Your task to perform on an android device: delete the emails in spam in the gmail app Image 0: 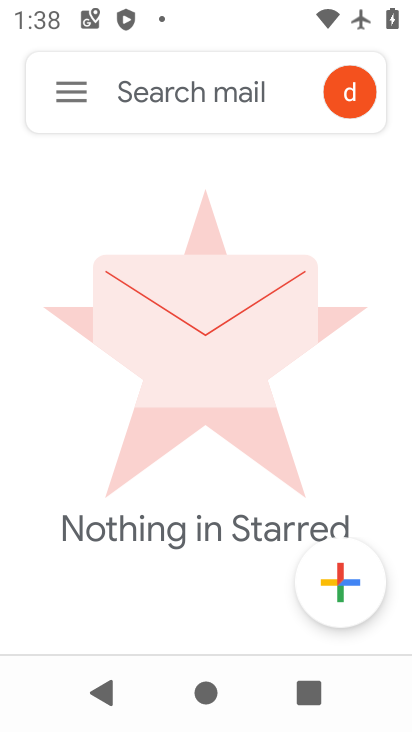
Step 0: press home button
Your task to perform on an android device: delete the emails in spam in the gmail app Image 1: 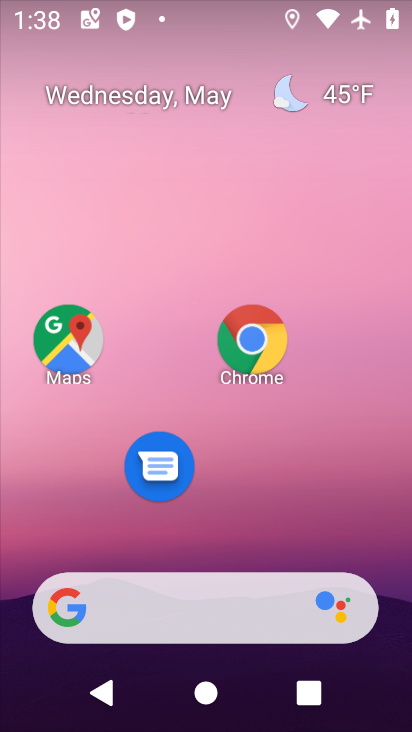
Step 1: drag from (166, 597) to (258, 91)
Your task to perform on an android device: delete the emails in spam in the gmail app Image 2: 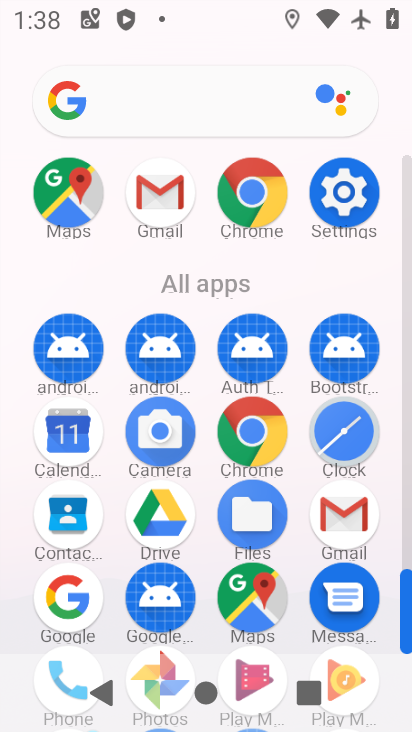
Step 2: click (171, 203)
Your task to perform on an android device: delete the emails in spam in the gmail app Image 3: 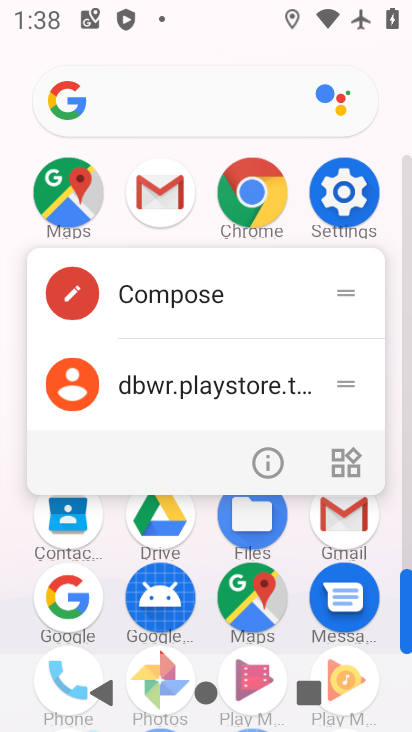
Step 3: click (161, 204)
Your task to perform on an android device: delete the emails in spam in the gmail app Image 4: 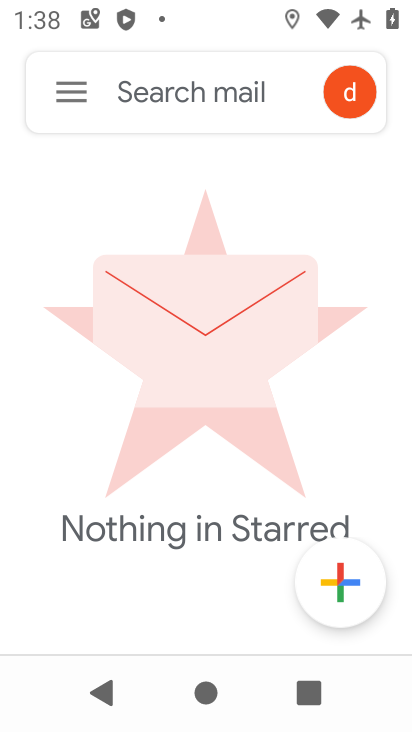
Step 4: click (74, 94)
Your task to perform on an android device: delete the emails in spam in the gmail app Image 5: 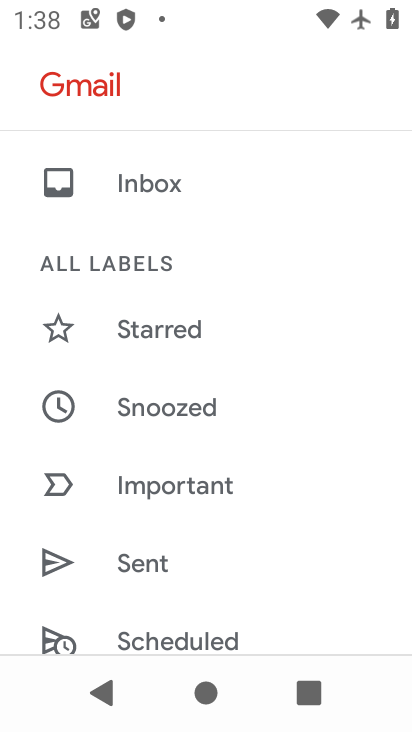
Step 5: drag from (212, 607) to (280, 165)
Your task to perform on an android device: delete the emails in spam in the gmail app Image 6: 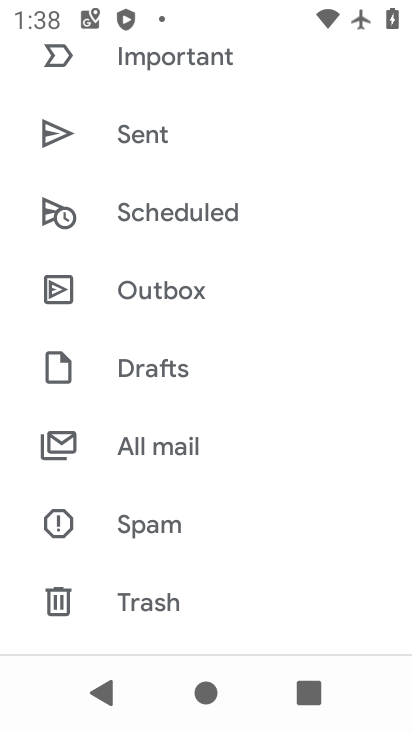
Step 6: click (154, 527)
Your task to perform on an android device: delete the emails in spam in the gmail app Image 7: 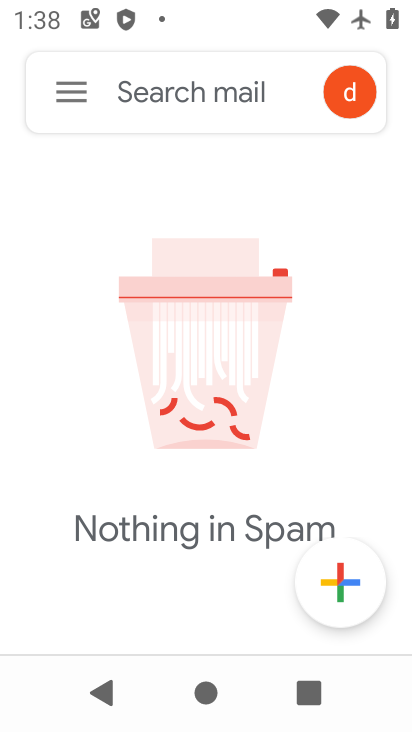
Step 7: task complete